Your task to perform on an android device: Open maps Image 0: 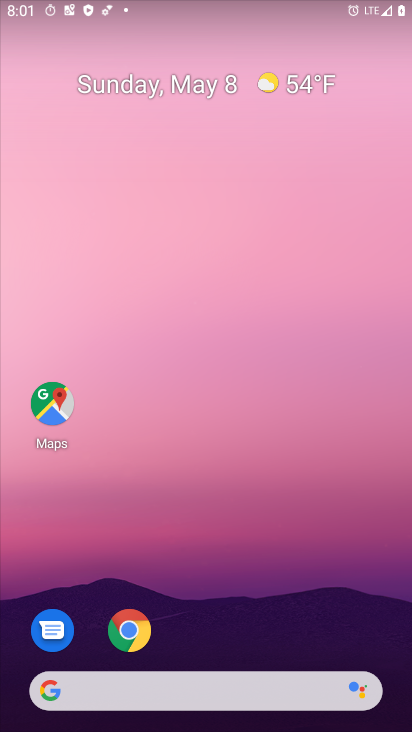
Step 0: drag from (241, 670) to (273, 4)
Your task to perform on an android device: Open maps Image 1: 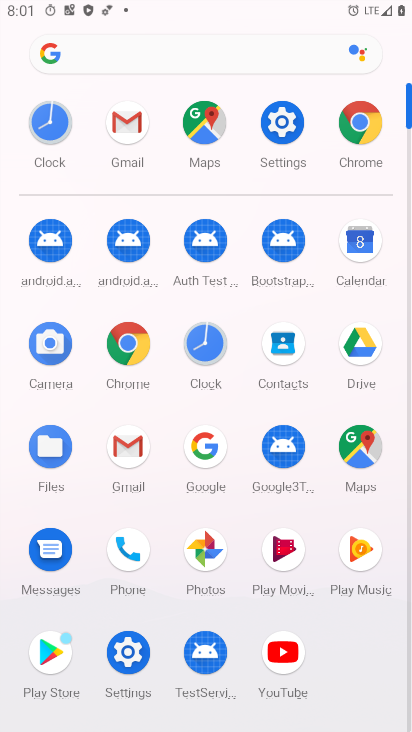
Step 1: click (353, 447)
Your task to perform on an android device: Open maps Image 2: 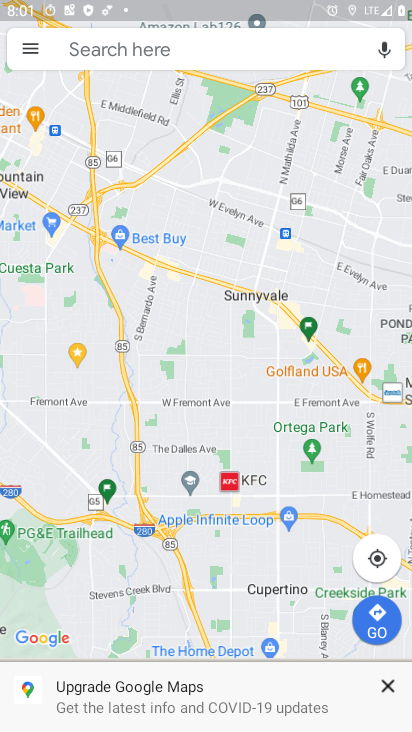
Step 2: click (389, 682)
Your task to perform on an android device: Open maps Image 3: 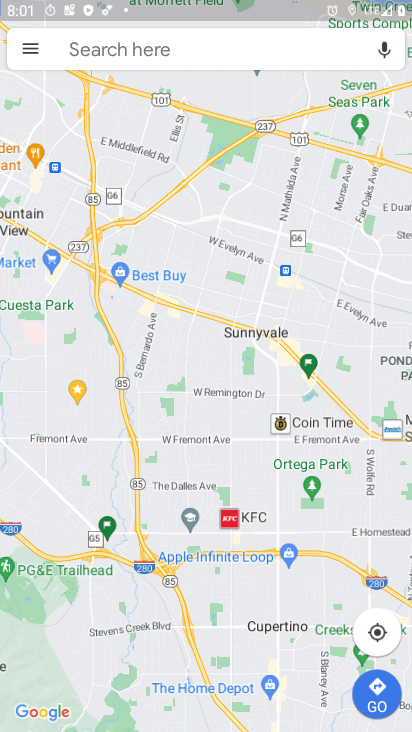
Step 3: task complete